Your task to perform on an android device: Open settings Image 0: 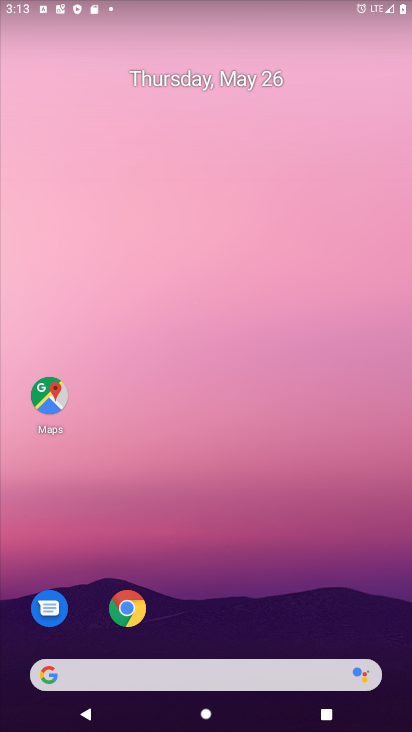
Step 0: drag from (377, 629) to (337, 311)
Your task to perform on an android device: Open settings Image 1: 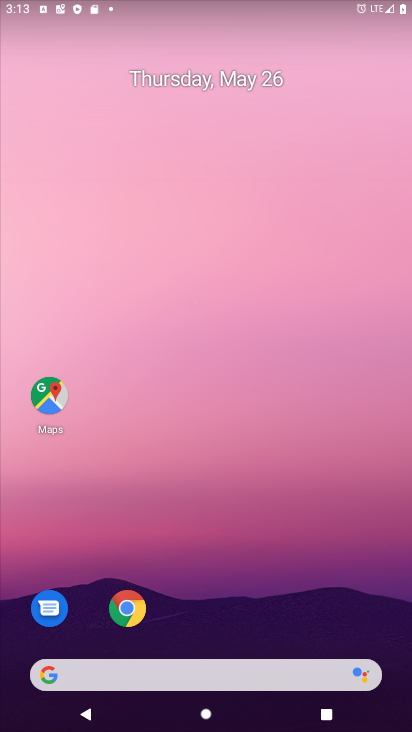
Step 1: drag from (329, 620) to (312, 91)
Your task to perform on an android device: Open settings Image 2: 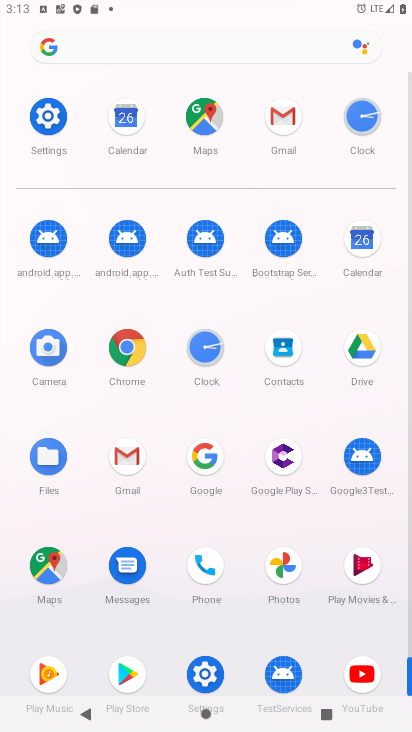
Step 2: click (206, 677)
Your task to perform on an android device: Open settings Image 3: 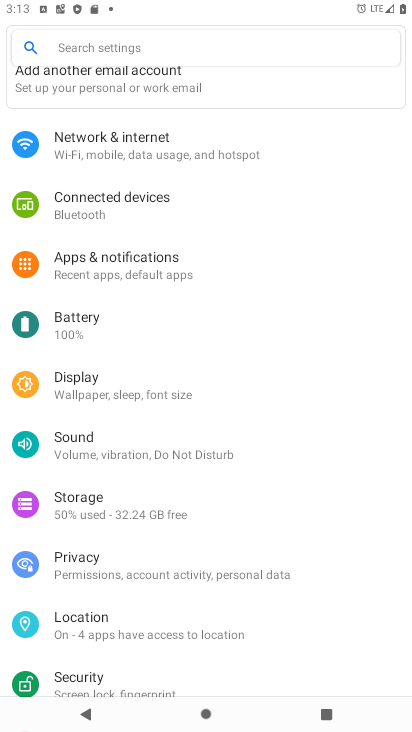
Step 3: task complete